Your task to perform on an android device: star an email in the gmail app Image 0: 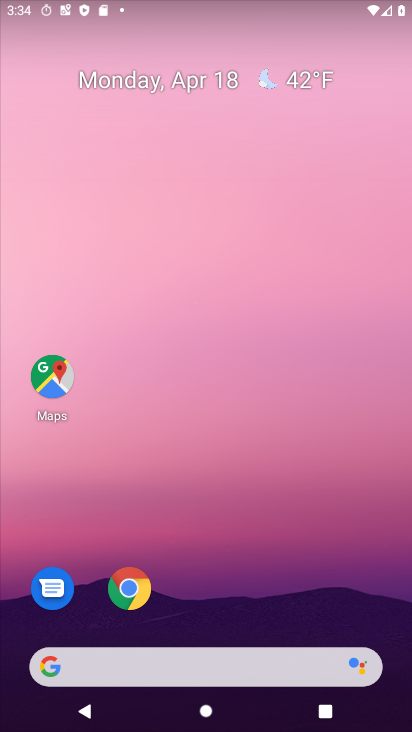
Step 0: drag from (200, 624) to (207, 0)
Your task to perform on an android device: star an email in the gmail app Image 1: 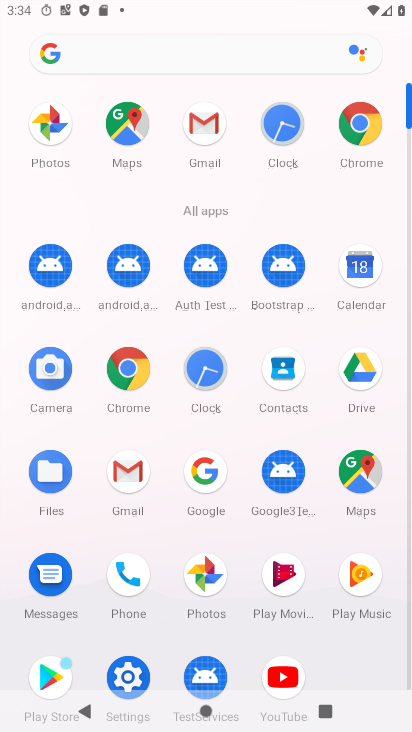
Step 1: click (210, 134)
Your task to perform on an android device: star an email in the gmail app Image 2: 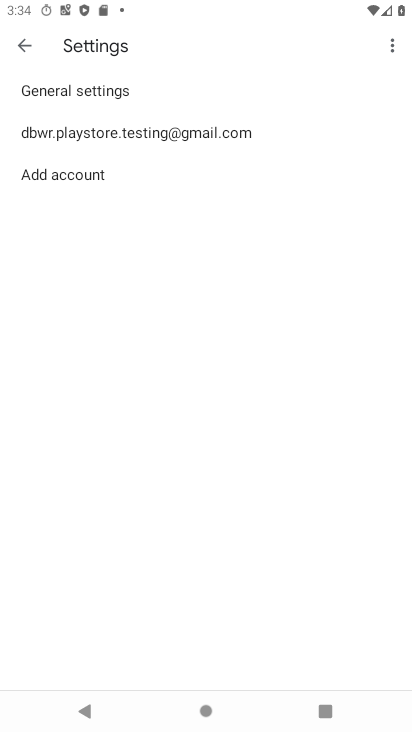
Step 2: click (34, 46)
Your task to perform on an android device: star an email in the gmail app Image 3: 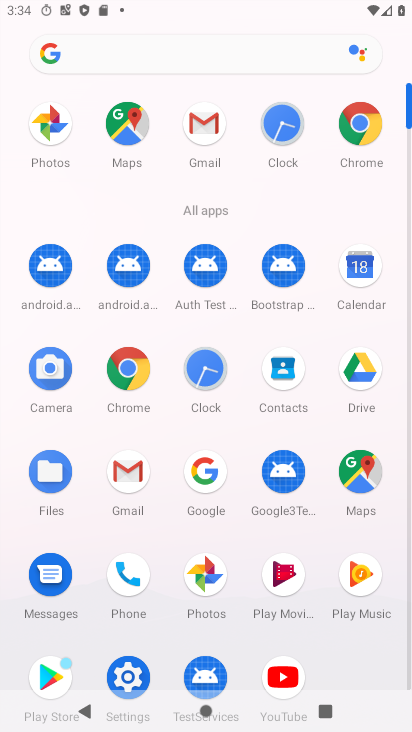
Step 3: click (214, 120)
Your task to perform on an android device: star an email in the gmail app Image 4: 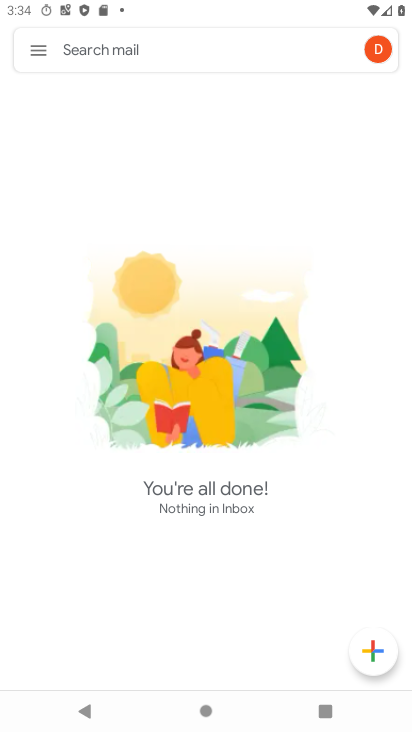
Step 4: click (371, 55)
Your task to perform on an android device: star an email in the gmail app Image 5: 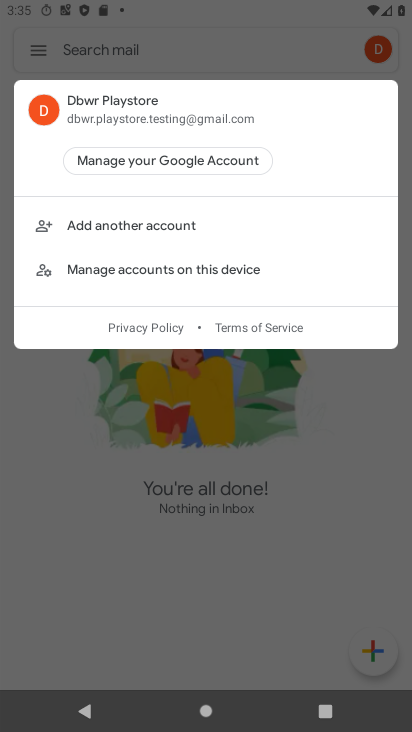
Step 5: task complete